Your task to perform on an android device: change the upload size in google photos Image 0: 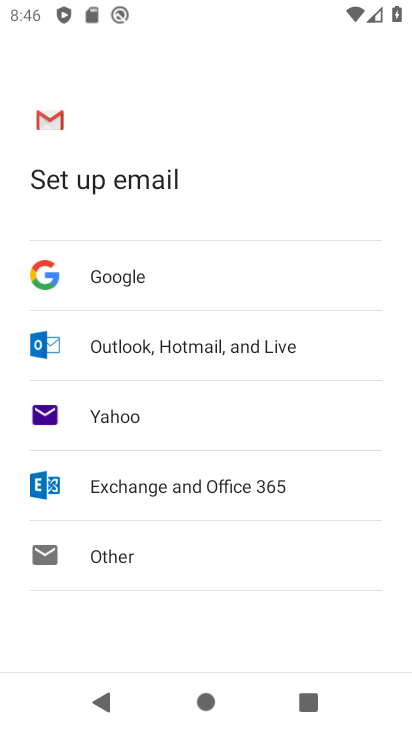
Step 0: press home button
Your task to perform on an android device: change the upload size in google photos Image 1: 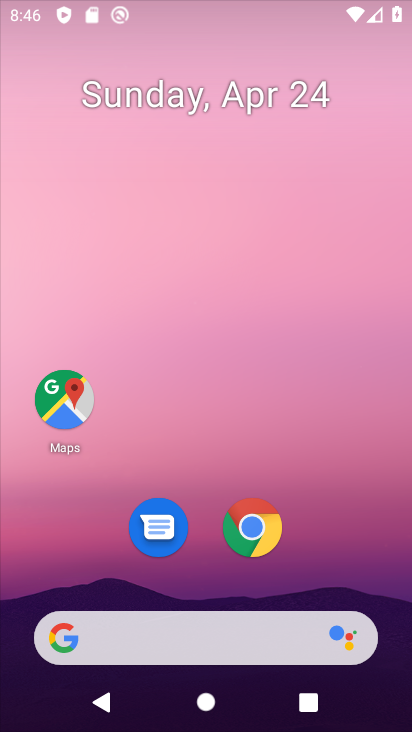
Step 1: drag from (388, 593) to (296, 31)
Your task to perform on an android device: change the upload size in google photos Image 2: 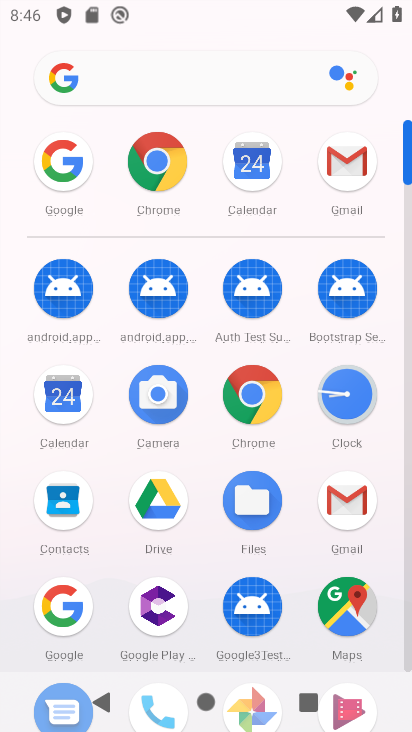
Step 2: click (405, 666)
Your task to perform on an android device: change the upload size in google photos Image 3: 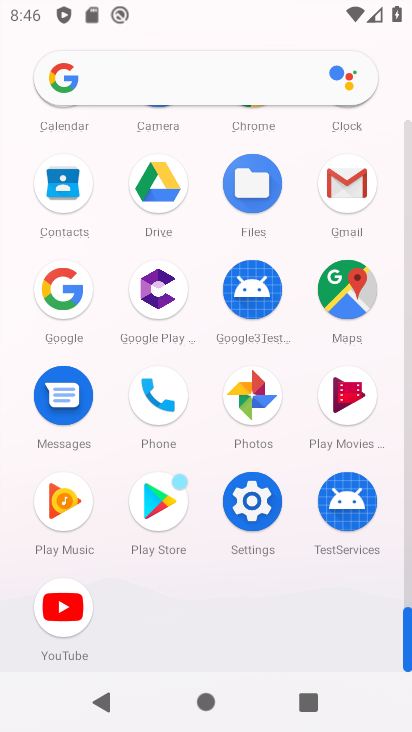
Step 3: click (262, 417)
Your task to perform on an android device: change the upload size in google photos Image 4: 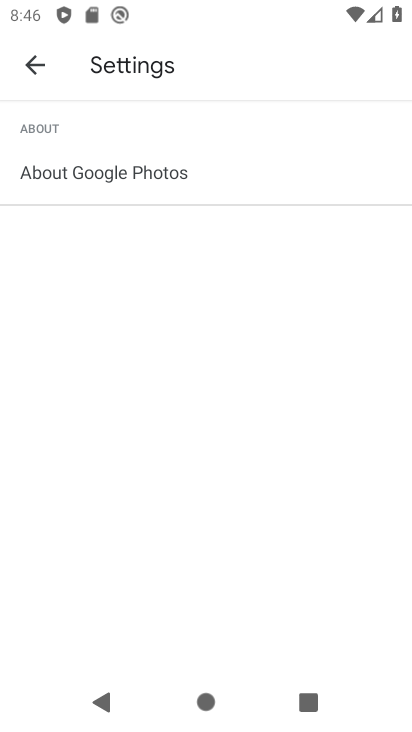
Step 4: press back button
Your task to perform on an android device: change the upload size in google photos Image 5: 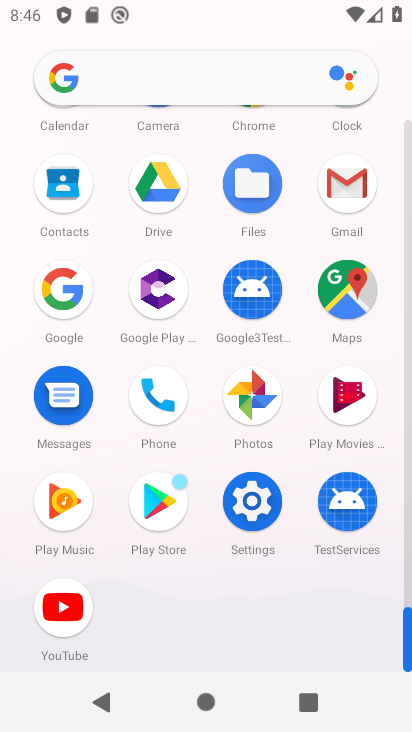
Step 5: click (251, 404)
Your task to perform on an android device: change the upload size in google photos Image 6: 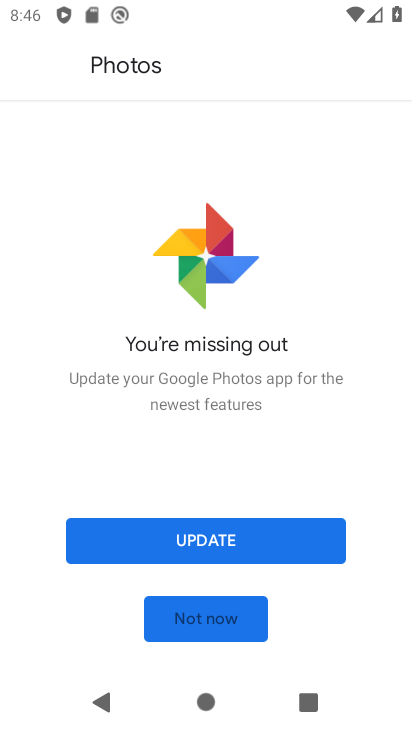
Step 6: click (204, 543)
Your task to perform on an android device: change the upload size in google photos Image 7: 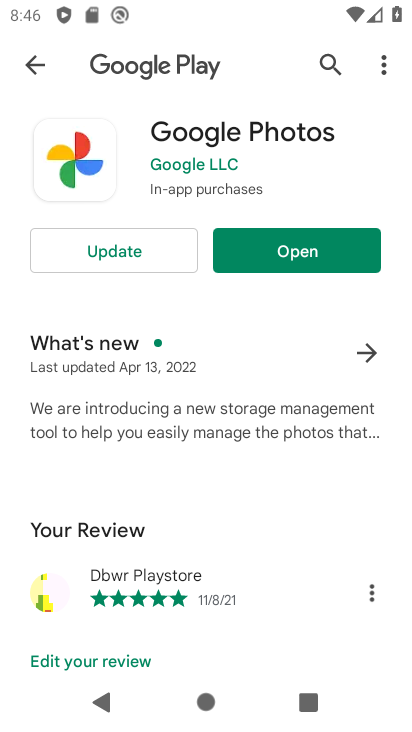
Step 7: click (124, 234)
Your task to perform on an android device: change the upload size in google photos Image 8: 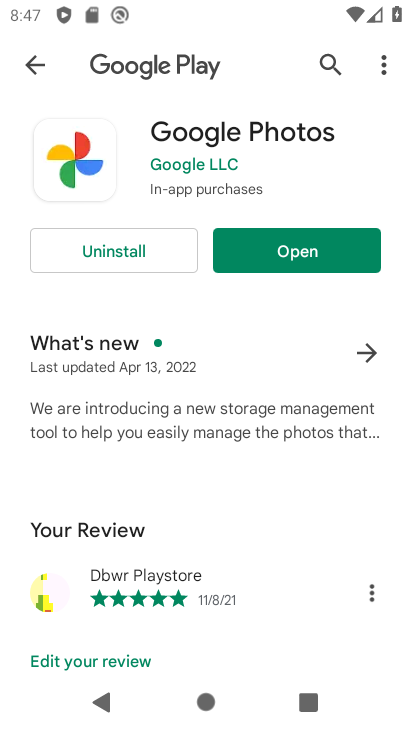
Step 8: click (283, 237)
Your task to perform on an android device: change the upload size in google photos Image 9: 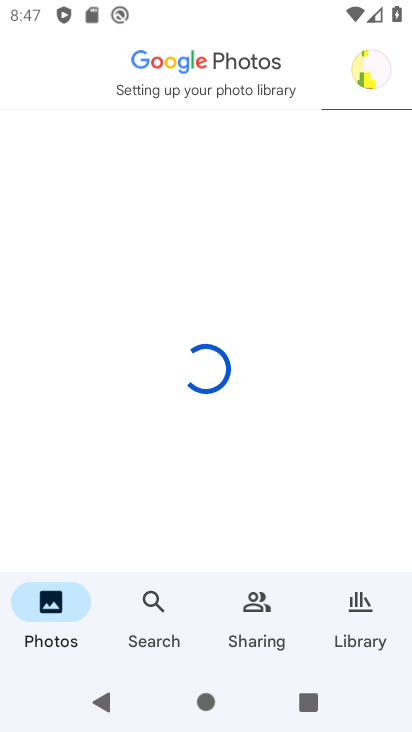
Step 9: click (363, 68)
Your task to perform on an android device: change the upload size in google photos Image 10: 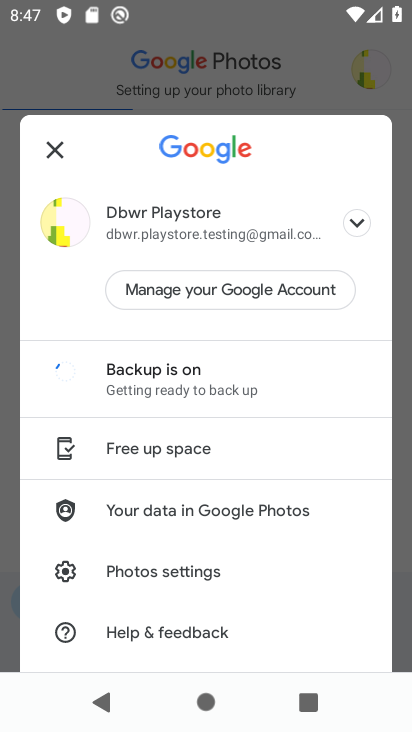
Step 10: drag from (129, 584) to (213, 194)
Your task to perform on an android device: change the upload size in google photos Image 11: 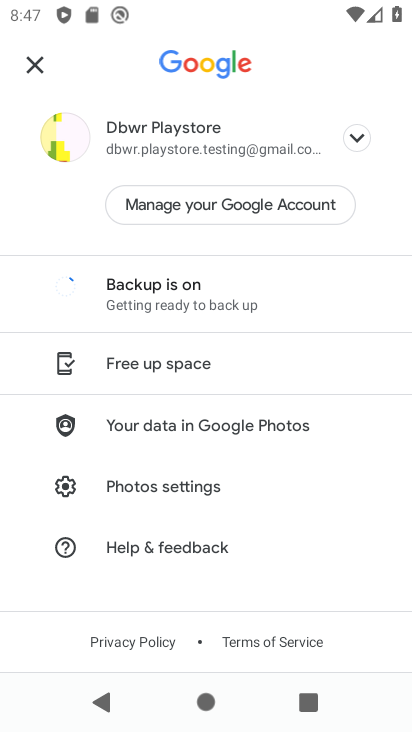
Step 11: click (157, 489)
Your task to perform on an android device: change the upload size in google photos Image 12: 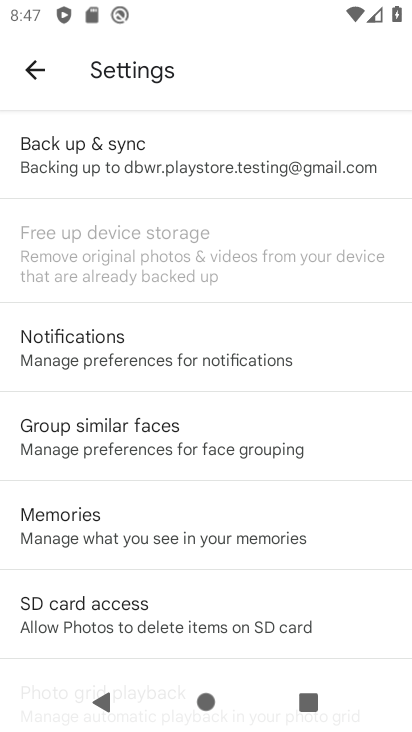
Step 12: click (178, 142)
Your task to perform on an android device: change the upload size in google photos Image 13: 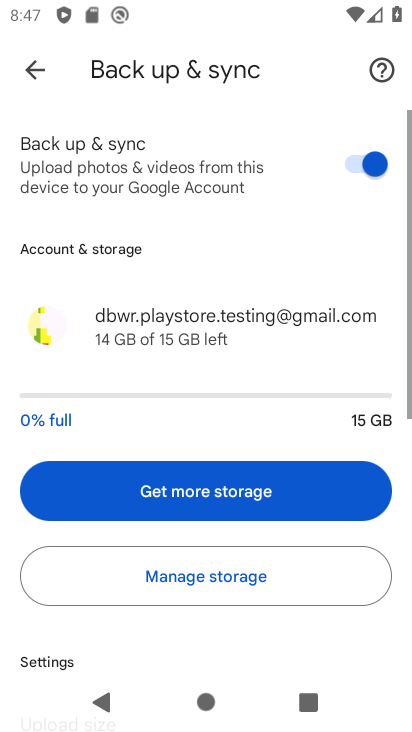
Step 13: drag from (154, 613) to (229, 111)
Your task to perform on an android device: change the upload size in google photos Image 14: 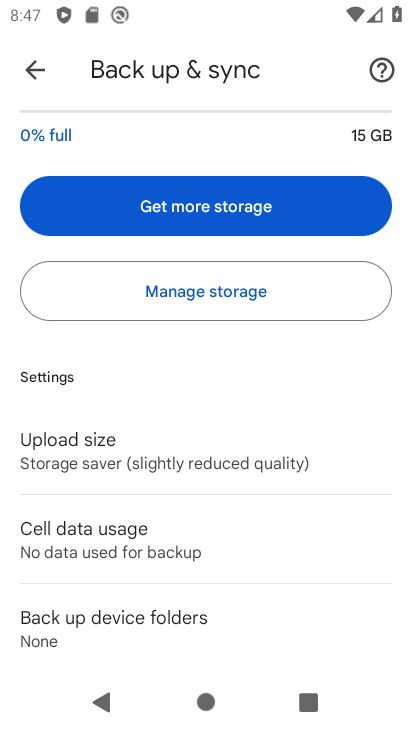
Step 14: click (135, 466)
Your task to perform on an android device: change the upload size in google photos Image 15: 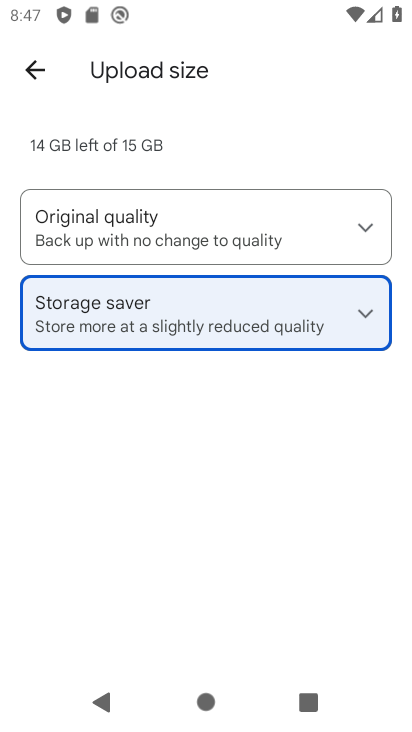
Step 15: click (311, 224)
Your task to perform on an android device: change the upload size in google photos Image 16: 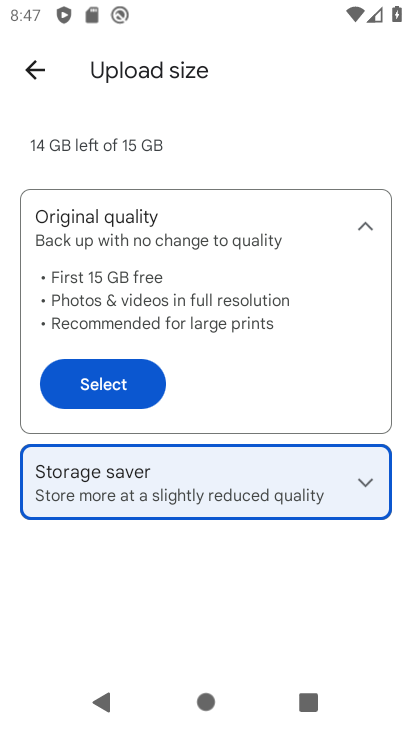
Step 16: click (78, 373)
Your task to perform on an android device: change the upload size in google photos Image 17: 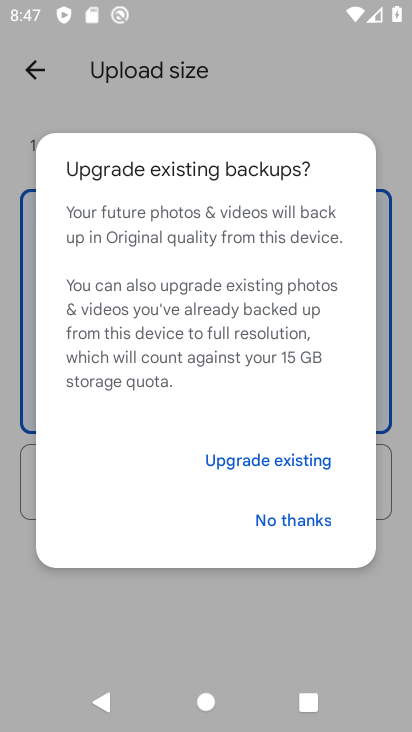
Step 17: click (264, 468)
Your task to perform on an android device: change the upload size in google photos Image 18: 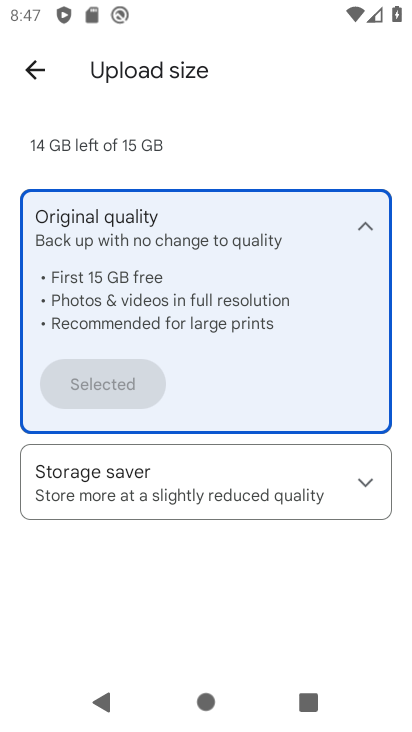
Step 18: task complete